Your task to perform on an android device: change your default location settings in chrome Image 0: 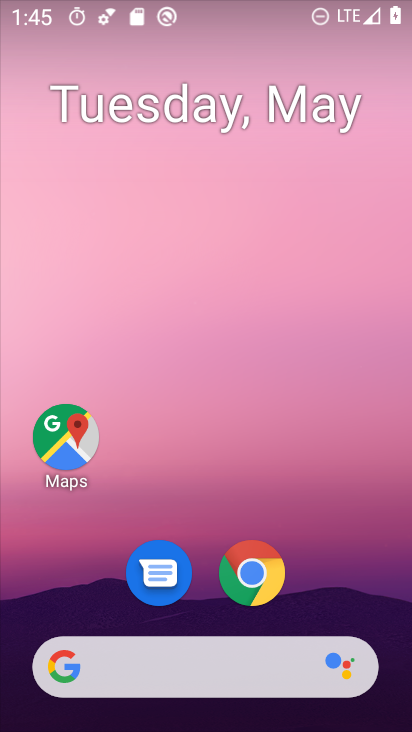
Step 0: drag from (324, 571) to (354, 121)
Your task to perform on an android device: change your default location settings in chrome Image 1: 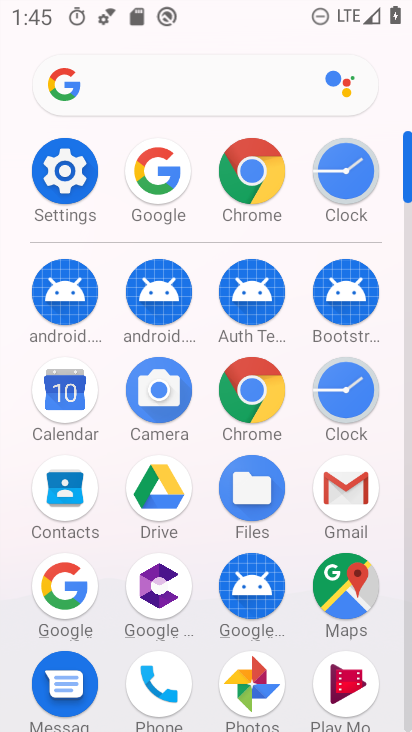
Step 1: click (255, 160)
Your task to perform on an android device: change your default location settings in chrome Image 2: 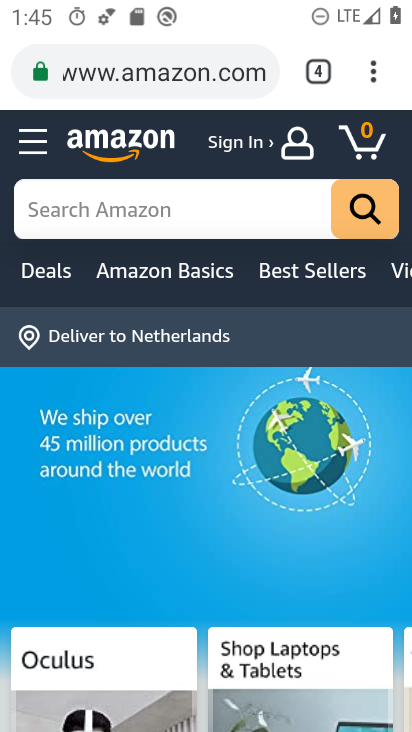
Step 2: drag from (368, 69) to (155, 569)
Your task to perform on an android device: change your default location settings in chrome Image 3: 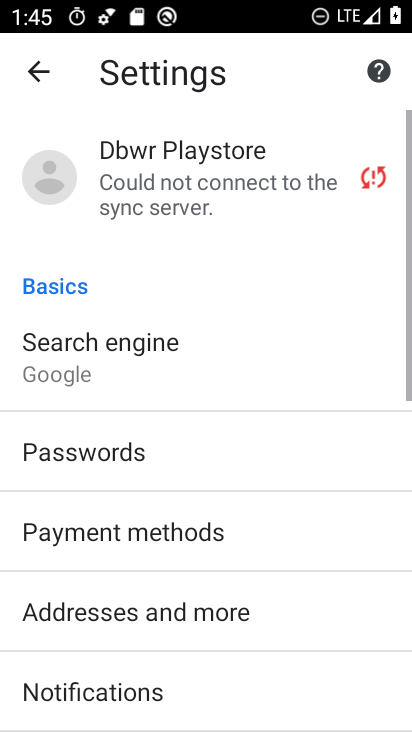
Step 3: drag from (181, 608) to (255, 102)
Your task to perform on an android device: change your default location settings in chrome Image 4: 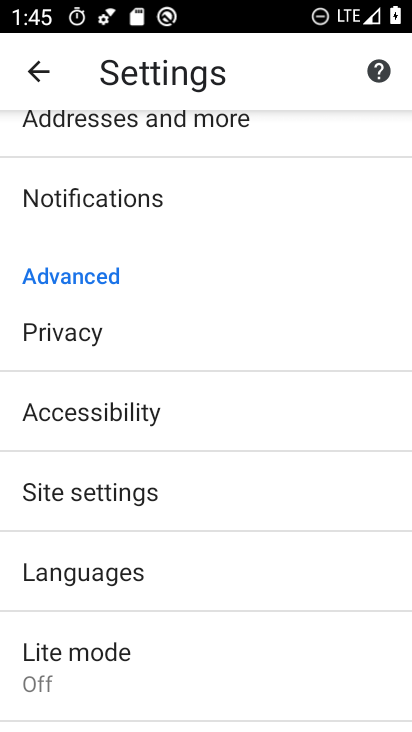
Step 4: drag from (119, 605) to (229, 283)
Your task to perform on an android device: change your default location settings in chrome Image 5: 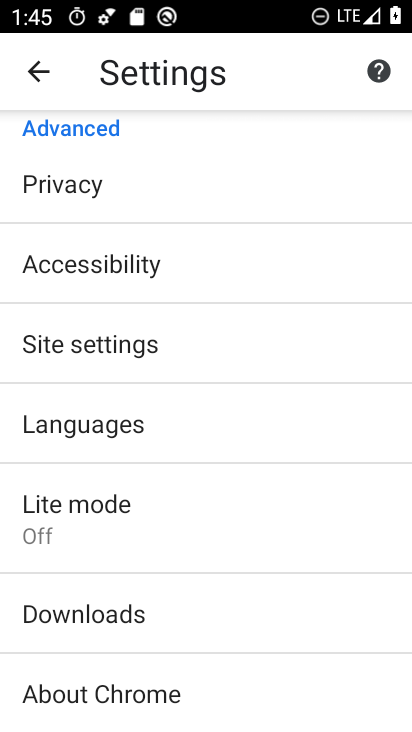
Step 5: click (178, 341)
Your task to perform on an android device: change your default location settings in chrome Image 6: 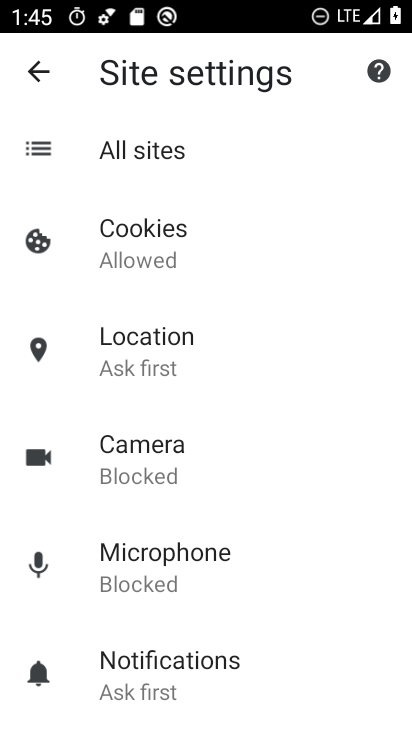
Step 6: click (166, 344)
Your task to perform on an android device: change your default location settings in chrome Image 7: 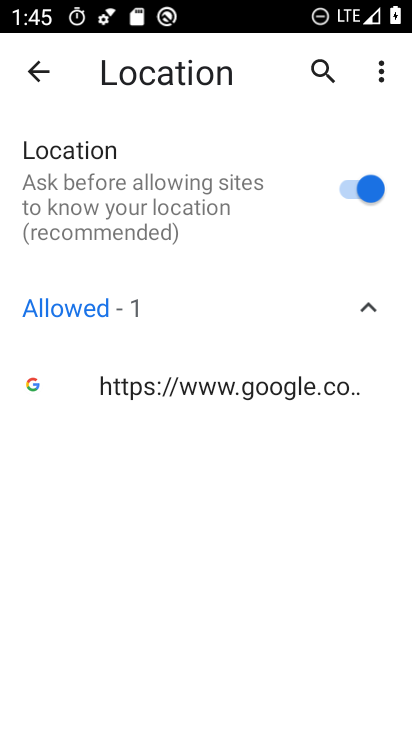
Step 7: click (342, 184)
Your task to perform on an android device: change your default location settings in chrome Image 8: 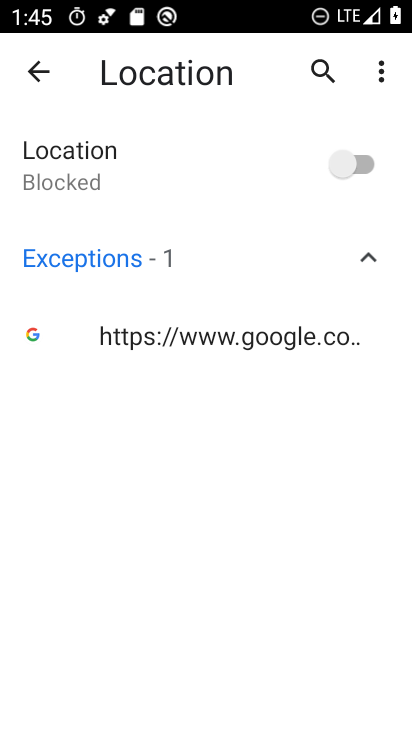
Step 8: task complete